Your task to perform on an android device: turn on the 12-hour format for clock Image 0: 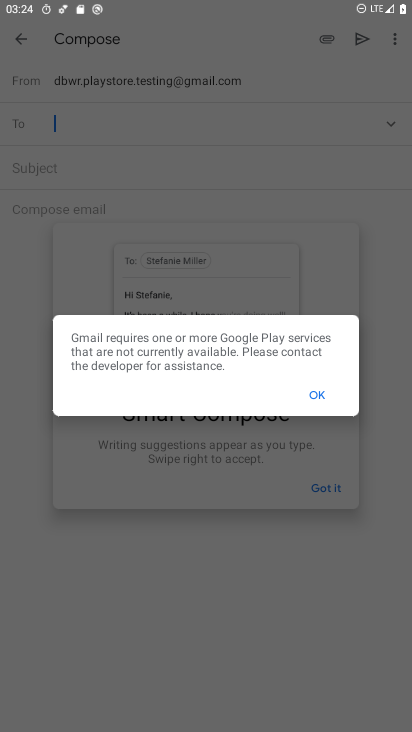
Step 0: press home button
Your task to perform on an android device: turn on the 12-hour format for clock Image 1: 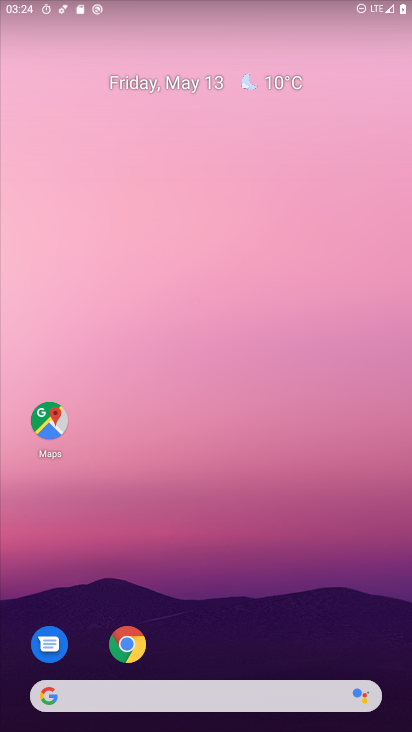
Step 1: drag from (262, 651) to (326, 67)
Your task to perform on an android device: turn on the 12-hour format for clock Image 2: 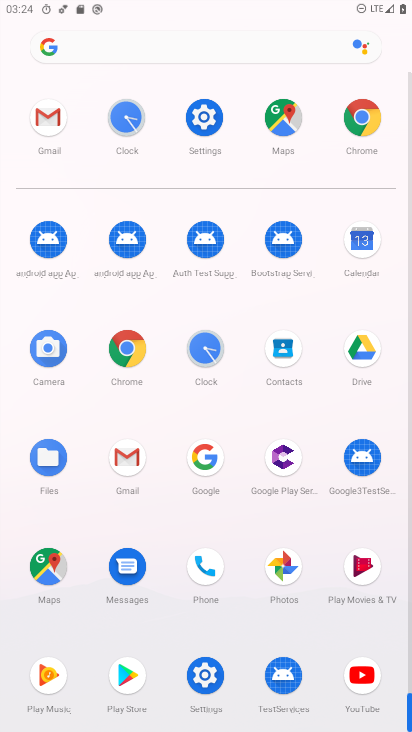
Step 2: click (200, 350)
Your task to perform on an android device: turn on the 12-hour format for clock Image 3: 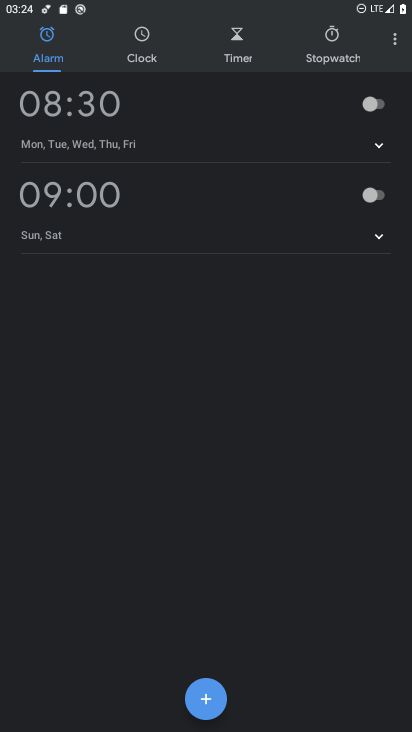
Step 3: click (398, 39)
Your task to perform on an android device: turn on the 12-hour format for clock Image 4: 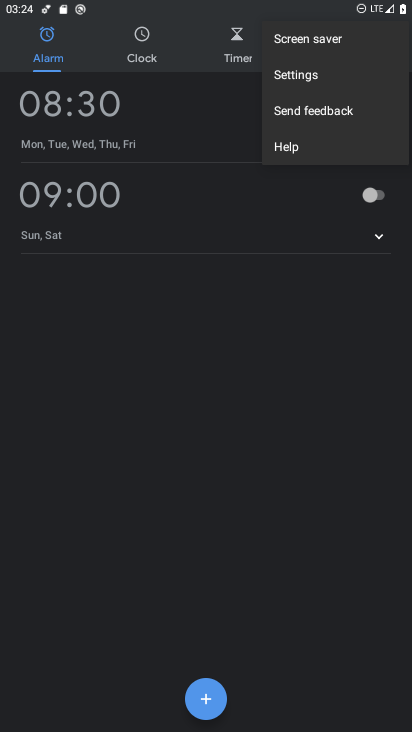
Step 4: click (336, 67)
Your task to perform on an android device: turn on the 12-hour format for clock Image 5: 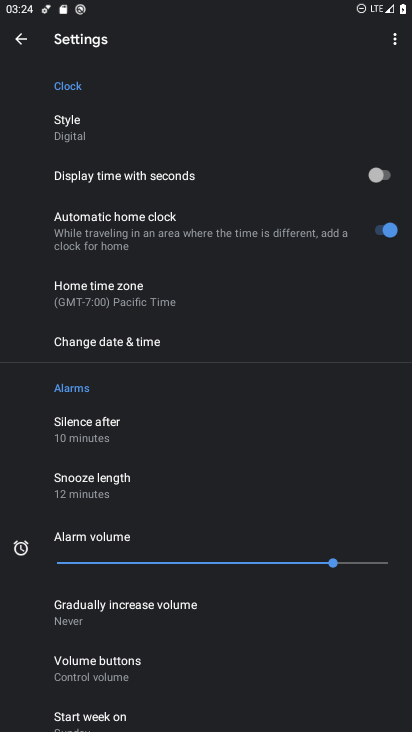
Step 5: click (164, 346)
Your task to perform on an android device: turn on the 12-hour format for clock Image 6: 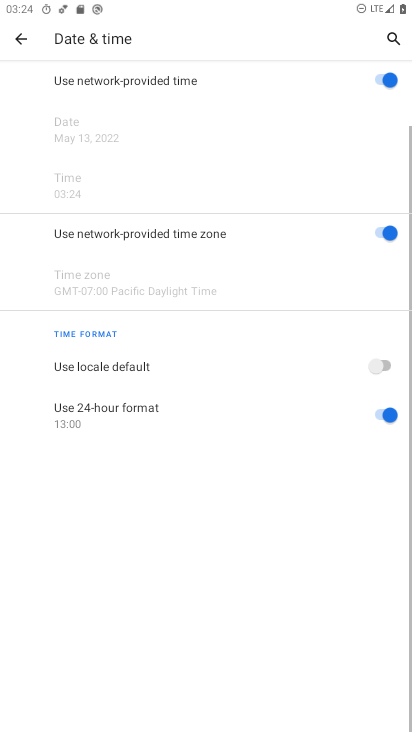
Step 6: drag from (214, 655) to (266, 414)
Your task to perform on an android device: turn on the 12-hour format for clock Image 7: 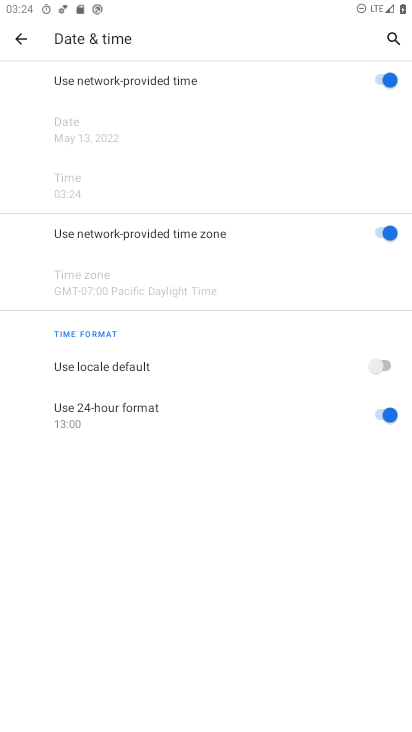
Step 7: click (384, 416)
Your task to perform on an android device: turn on the 12-hour format for clock Image 8: 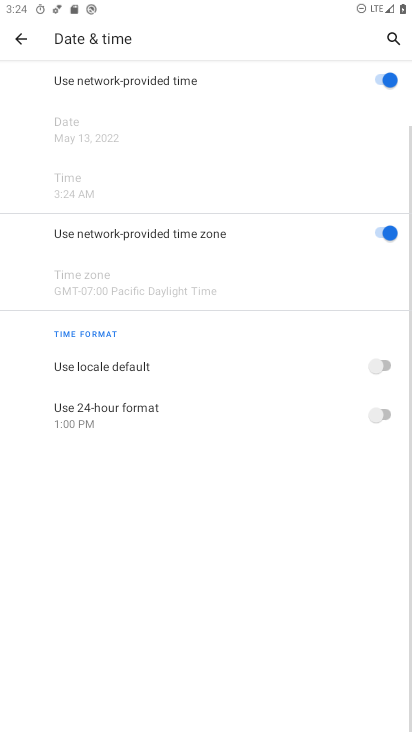
Step 8: task complete